Your task to perform on an android device: Open location settings Image 0: 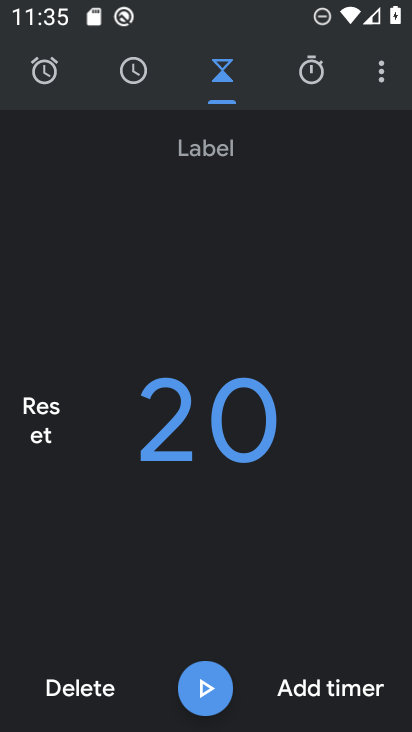
Step 0: click (377, 80)
Your task to perform on an android device: Open location settings Image 1: 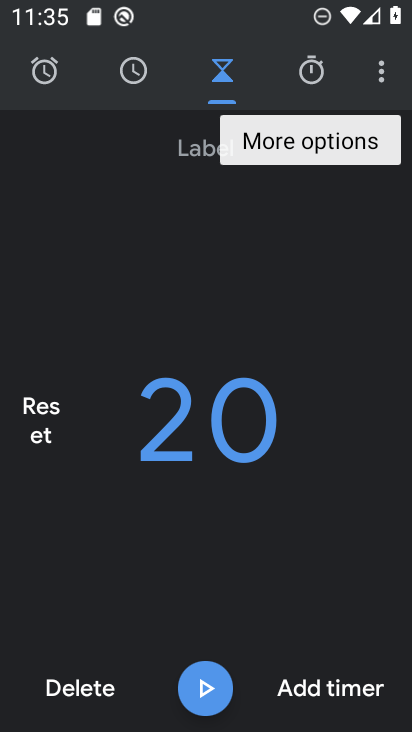
Step 1: click (377, 81)
Your task to perform on an android device: Open location settings Image 2: 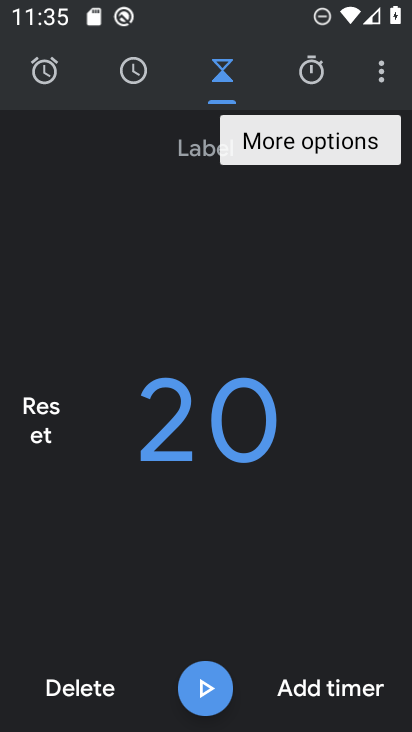
Step 2: click (378, 67)
Your task to perform on an android device: Open location settings Image 3: 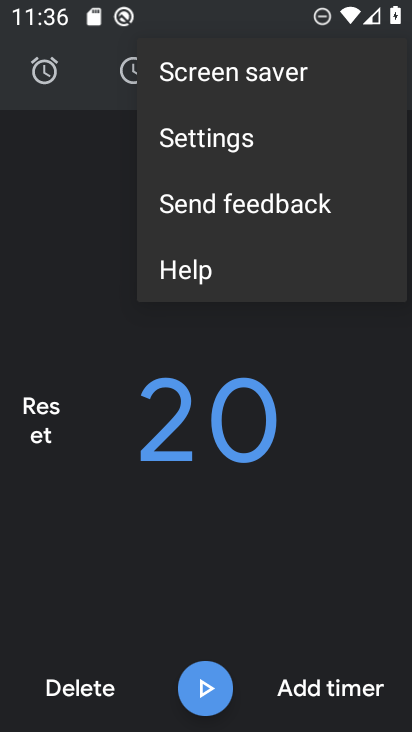
Step 3: click (378, 67)
Your task to perform on an android device: Open location settings Image 4: 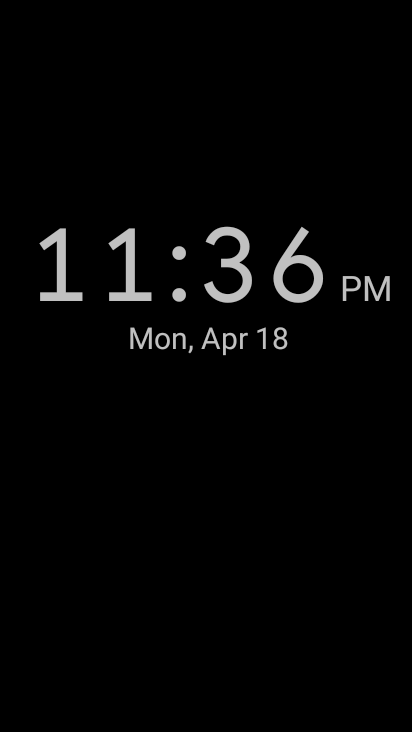
Step 4: press back button
Your task to perform on an android device: Open location settings Image 5: 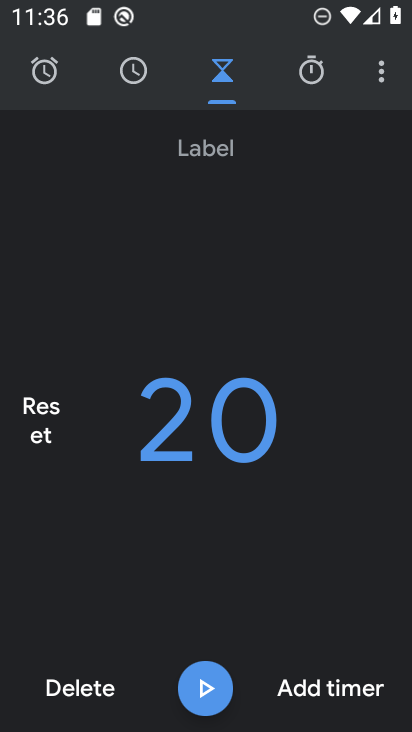
Step 5: click (377, 68)
Your task to perform on an android device: Open location settings Image 6: 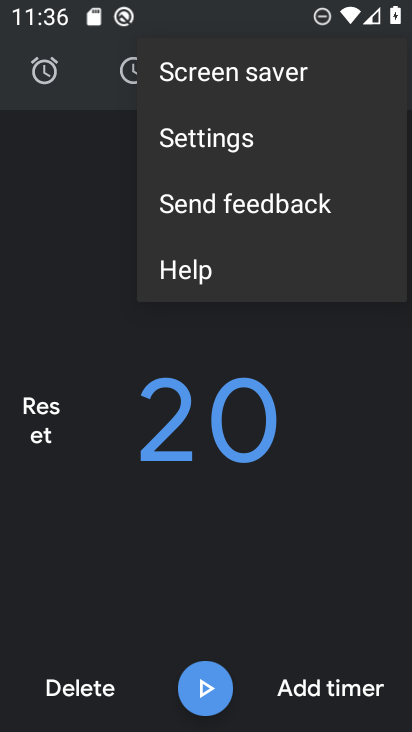
Step 6: click (152, 134)
Your task to perform on an android device: Open location settings Image 7: 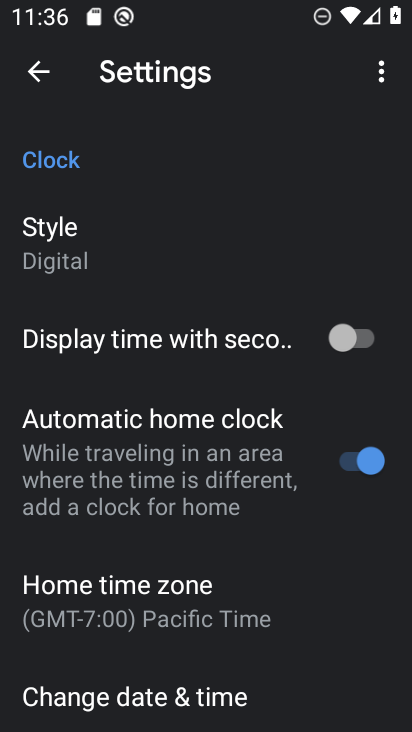
Step 7: click (38, 88)
Your task to perform on an android device: Open location settings Image 8: 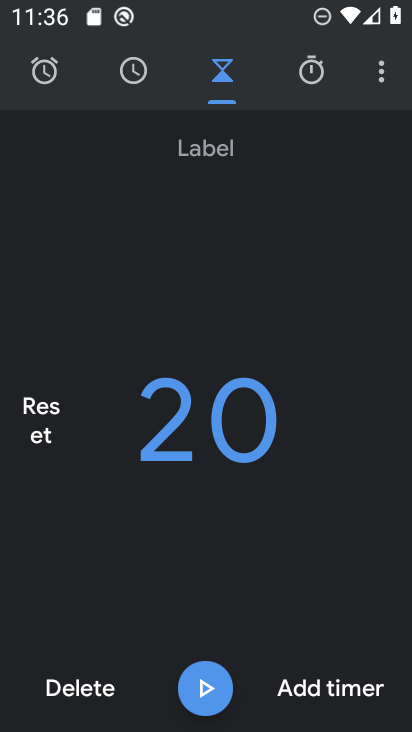
Step 8: click (38, 87)
Your task to perform on an android device: Open location settings Image 9: 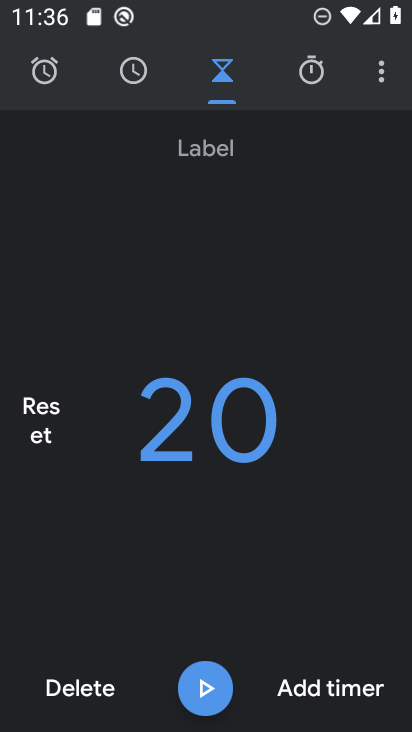
Step 9: press back button
Your task to perform on an android device: Open location settings Image 10: 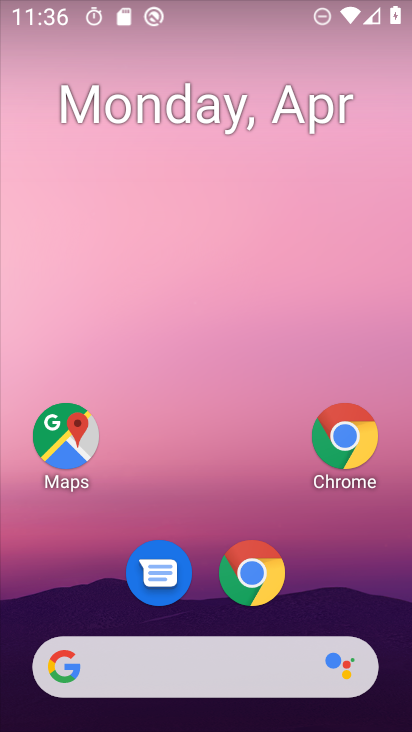
Step 10: drag from (368, 518) to (298, 55)
Your task to perform on an android device: Open location settings Image 11: 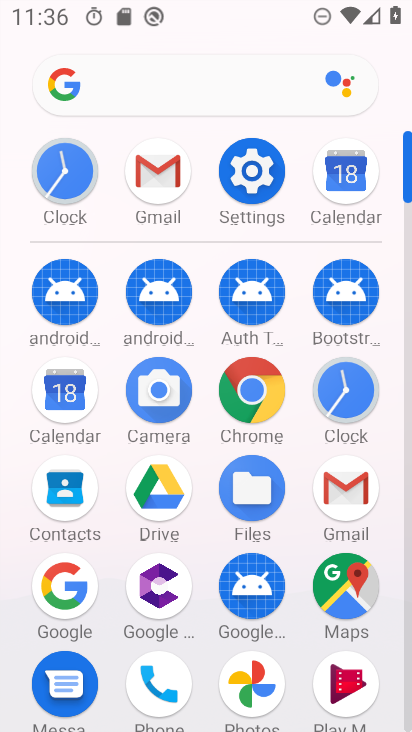
Step 11: click (234, 147)
Your task to perform on an android device: Open location settings Image 12: 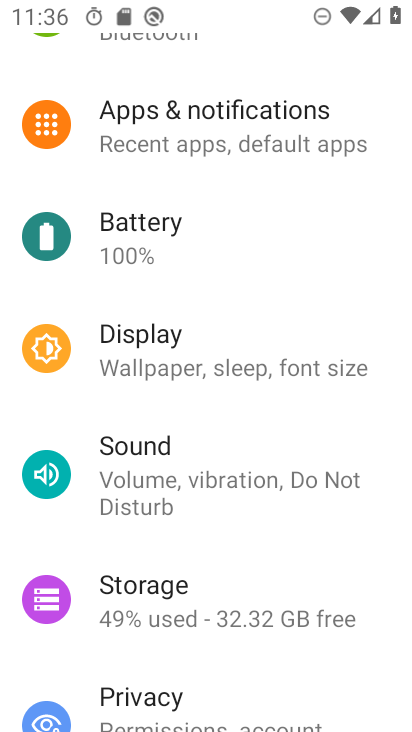
Step 12: drag from (210, 590) to (185, 235)
Your task to perform on an android device: Open location settings Image 13: 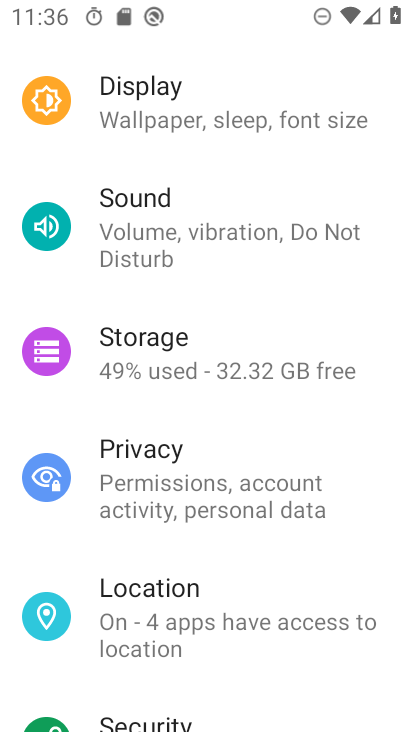
Step 13: click (223, 650)
Your task to perform on an android device: Open location settings Image 14: 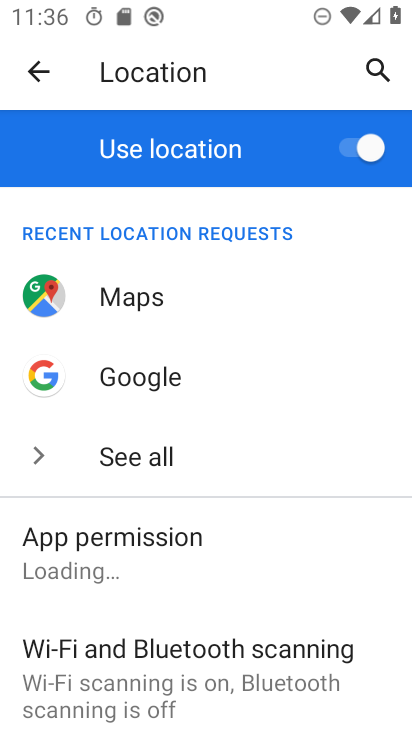
Step 14: task complete